Your task to perform on an android device: Go to Android settings Image 0: 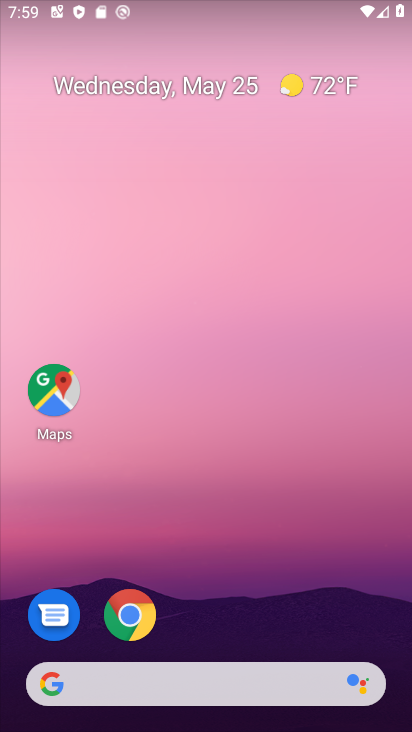
Step 0: drag from (264, 549) to (231, 37)
Your task to perform on an android device: Go to Android settings Image 1: 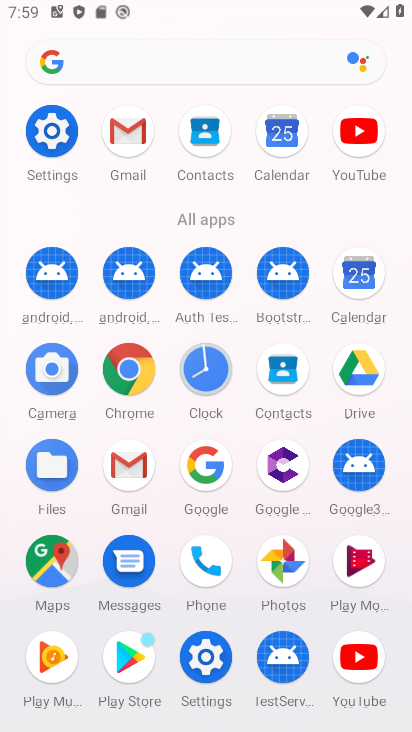
Step 1: click (45, 127)
Your task to perform on an android device: Go to Android settings Image 2: 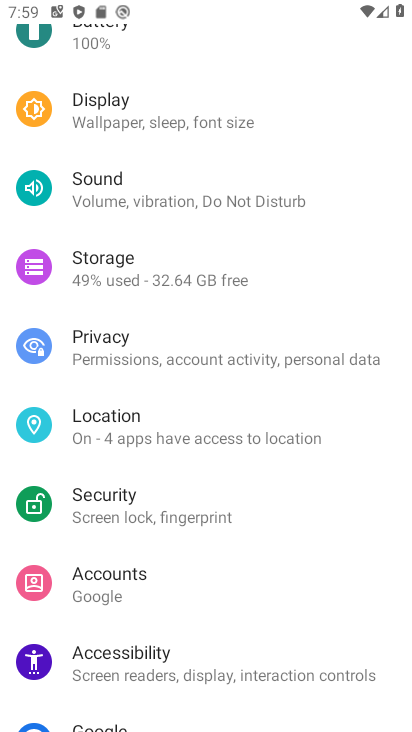
Step 2: drag from (202, 615) to (223, 229)
Your task to perform on an android device: Go to Android settings Image 3: 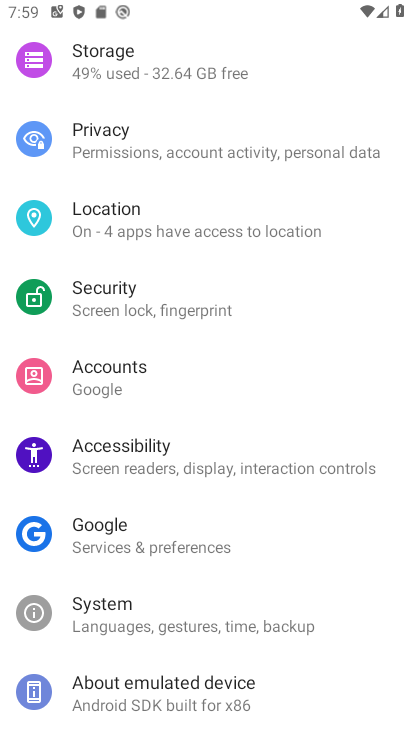
Step 3: click (148, 682)
Your task to perform on an android device: Go to Android settings Image 4: 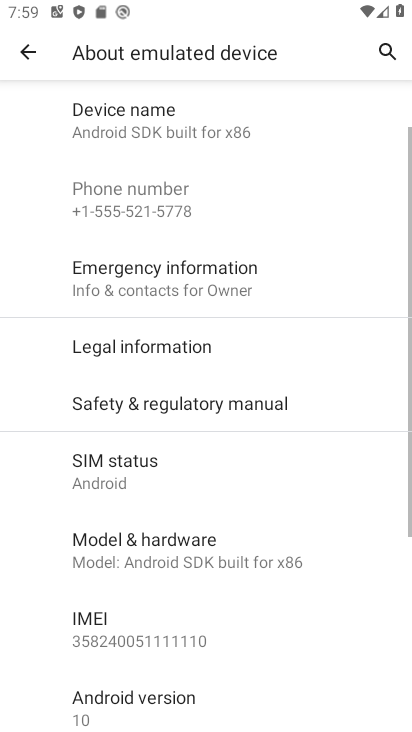
Step 4: task complete